Your task to perform on an android device: turn off improve location accuracy Image 0: 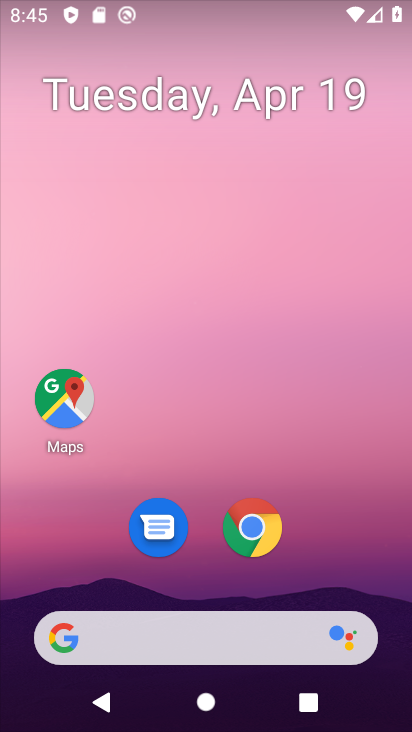
Step 0: drag from (307, 549) to (312, 212)
Your task to perform on an android device: turn off improve location accuracy Image 1: 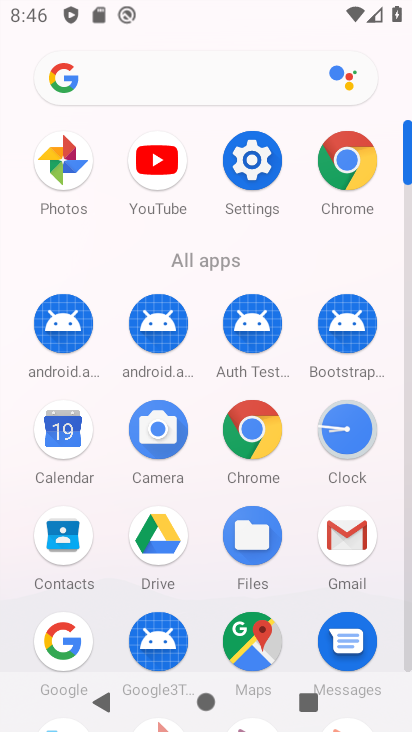
Step 1: click (245, 150)
Your task to perform on an android device: turn off improve location accuracy Image 2: 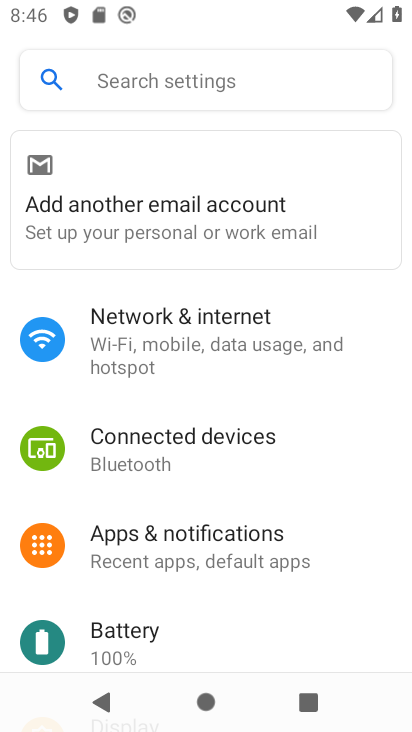
Step 2: drag from (285, 591) to (284, 95)
Your task to perform on an android device: turn off improve location accuracy Image 3: 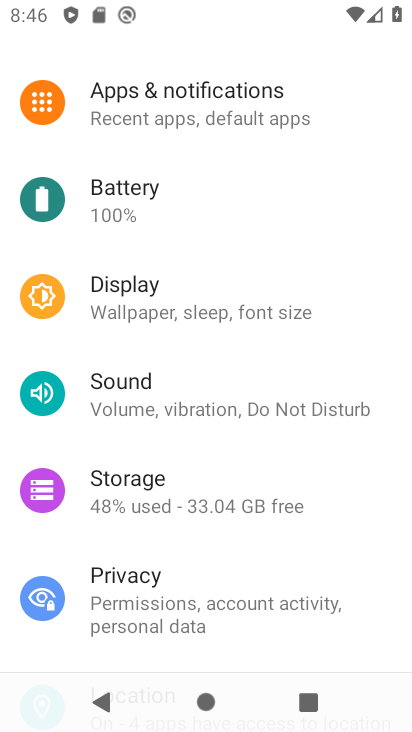
Step 3: drag from (178, 556) to (231, 187)
Your task to perform on an android device: turn off improve location accuracy Image 4: 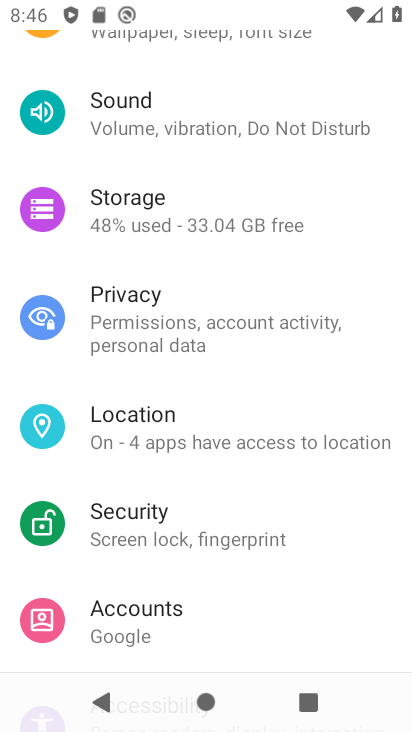
Step 4: click (144, 431)
Your task to perform on an android device: turn off improve location accuracy Image 5: 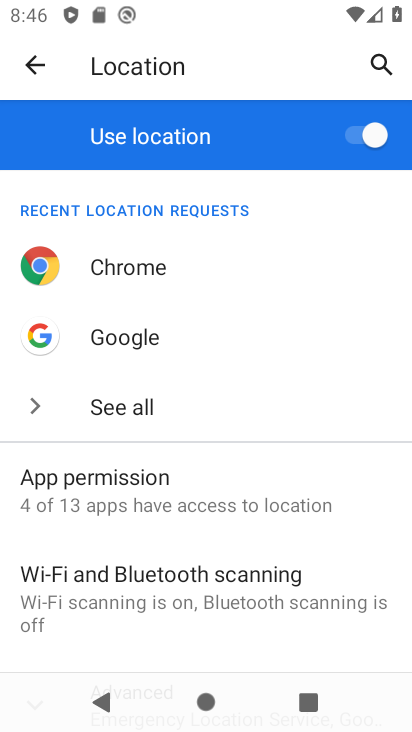
Step 5: drag from (281, 520) to (307, 244)
Your task to perform on an android device: turn off improve location accuracy Image 6: 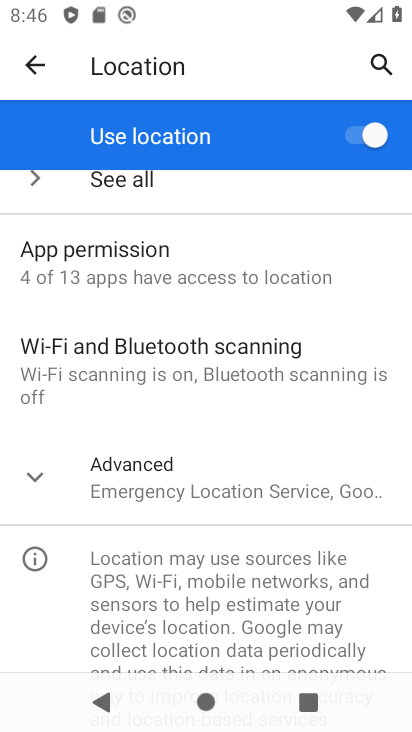
Step 6: click (203, 465)
Your task to perform on an android device: turn off improve location accuracy Image 7: 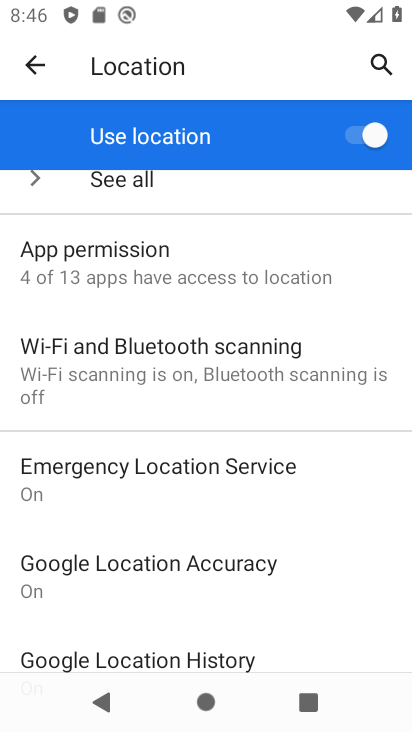
Step 7: click (234, 584)
Your task to perform on an android device: turn off improve location accuracy Image 8: 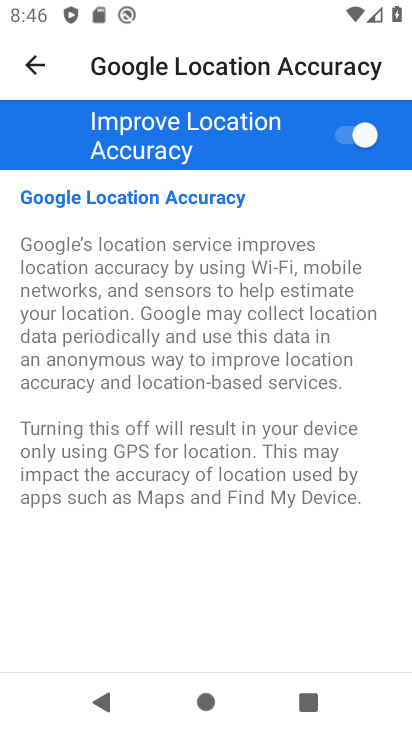
Step 8: click (360, 125)
Your task to perform on an android device: turn off improve location accuracy Image 9: 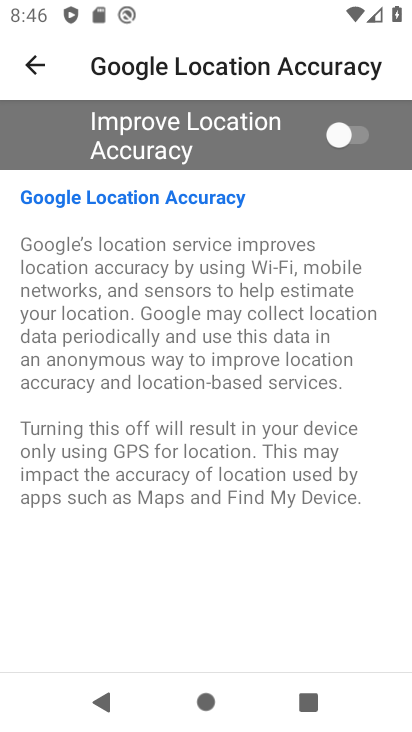
Step 9: task complete